Your task to perform on an android device: Go to internet settings Image 0: 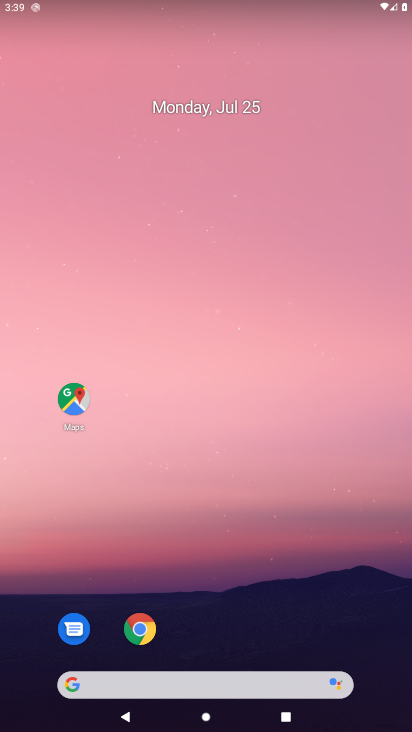
Step 0: drag from (9, 690) to (150, 207)
Your task to perform on an android device: Go to internet settings Image 1: 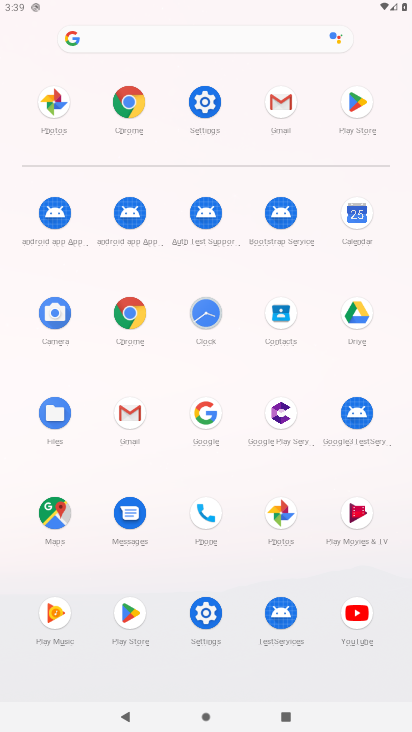
Step 1: click (211, 627)
Your task to perform on an android device: Go to internet settings Image 2: 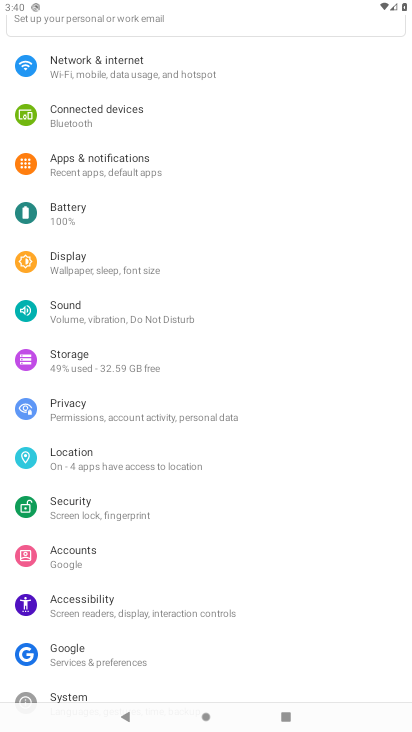
Step 2: click (76, 66)
Your task to perform on an android device: Go to internet settings Image 3: 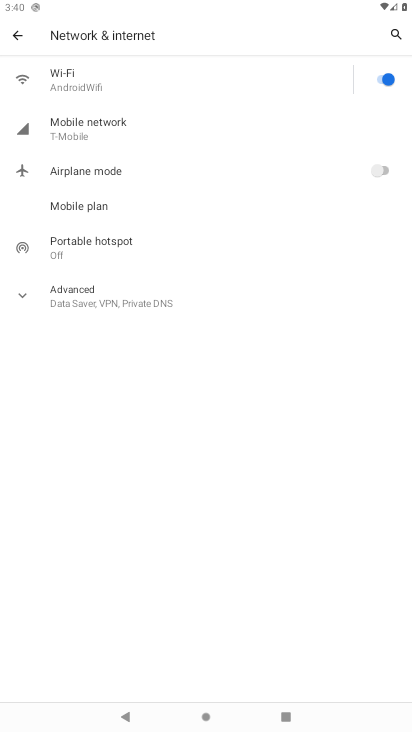
Step 3: task complete